Your task to perform on an android device: Open Google Chrome and click the shortcut for Amazon.com Image 0: 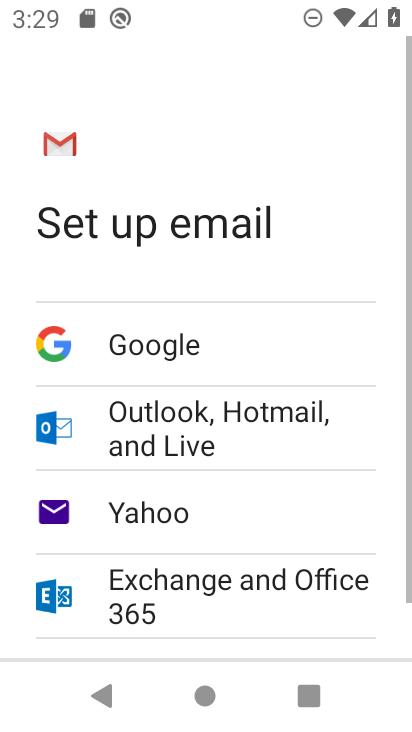
Step 0: press home button
Your task to perform on an android device: Open Google Chrome and click the shortcut for Amazon.com Image 1: 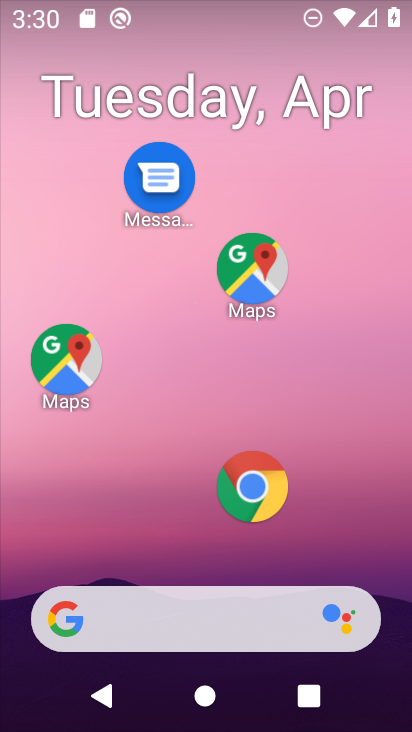
Step 1: click (262, 511)
Your task to perform on an android device: Open Google Chrome and click the shortcut for Amazon.com Image 2: 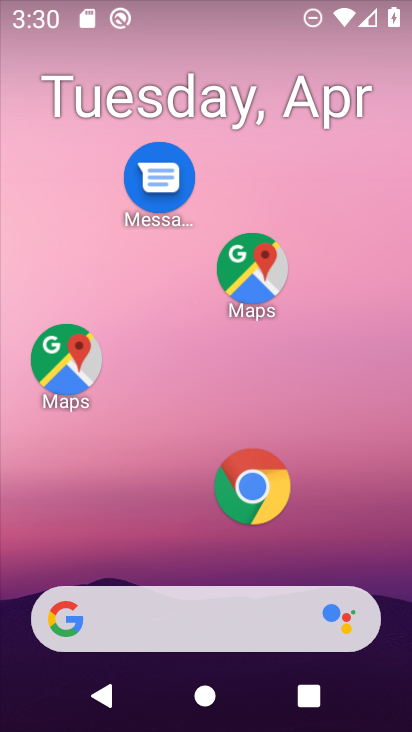
Step 2: click (262, 508)
Your task to perform on an android device: Open Google Chrome and click the shortcut for Amazon.com Image 3: 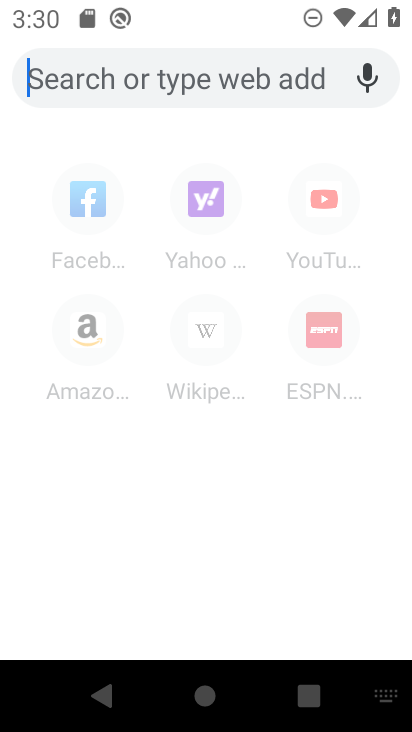
Step 3: click (71, 359)
Your task to perform on an android device: Open Google Chrome and click the shortcut for Amazon.com Image 4: 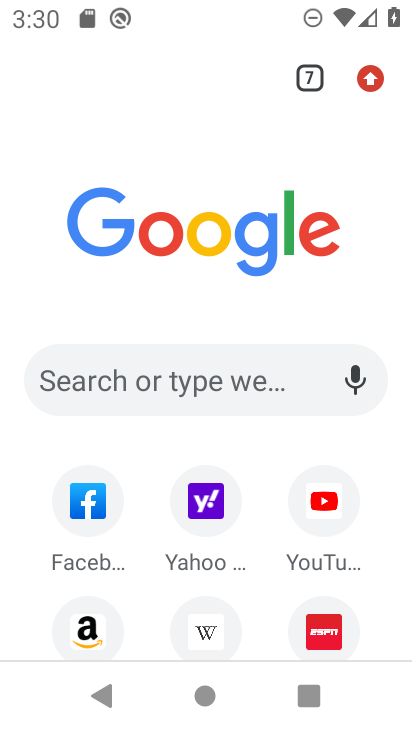
Step 4: click (99, 608)
Your task to perform on an android device: Open Google Chrome and click the shortcut for Amazon.com Image 5: 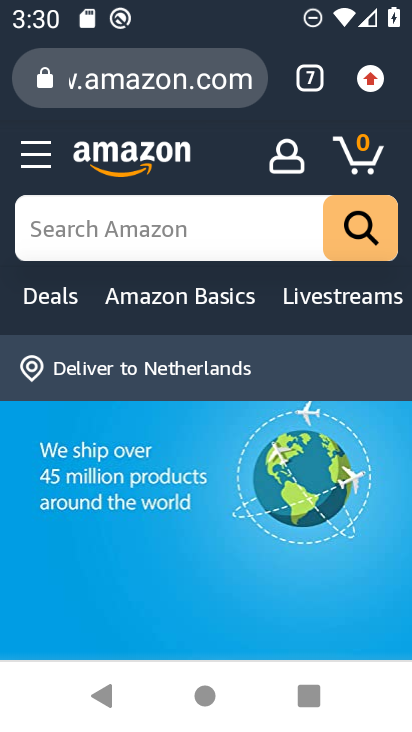
Step 5: task complete